Your task to perform on an android device: What's the price of the Hisense TV? Image 0: 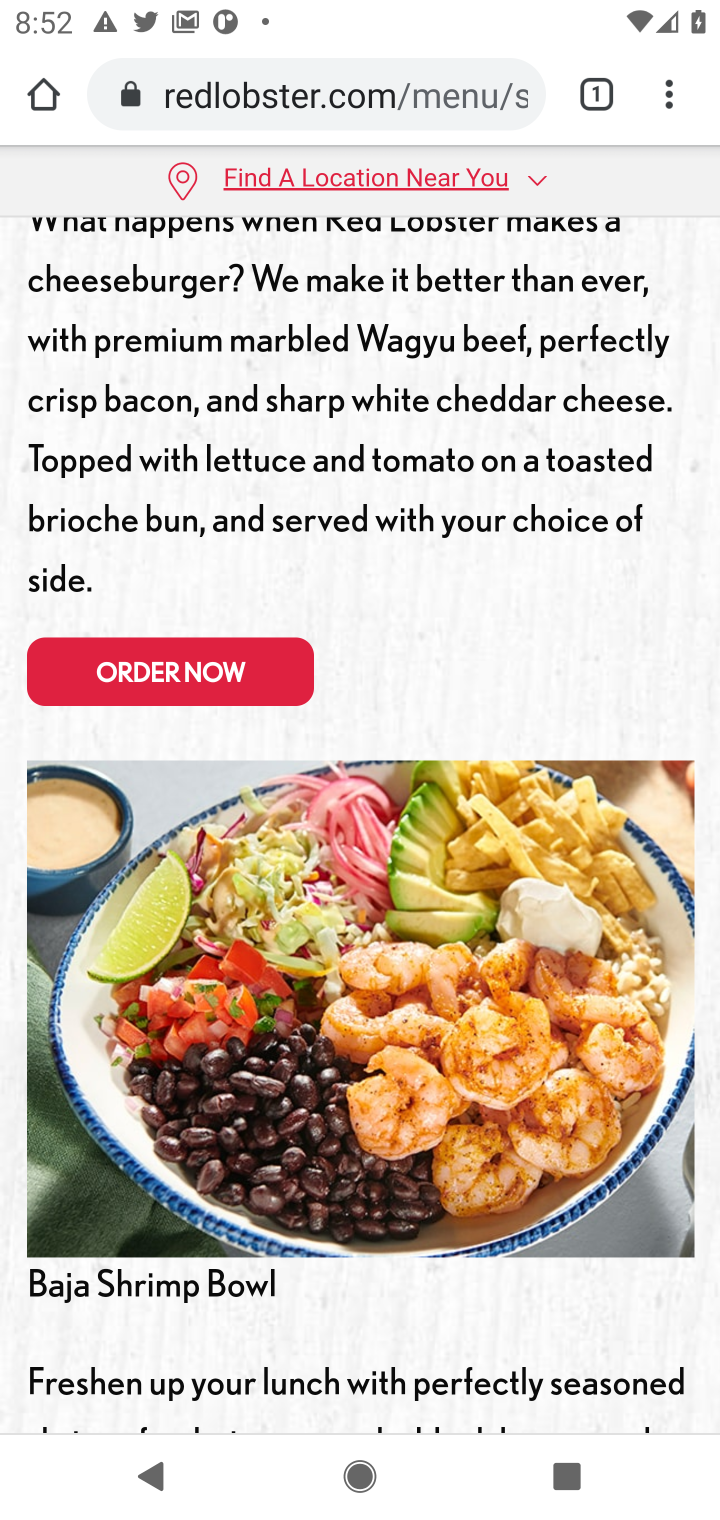
Step 0: press home button
Your task to perform on an android device: What's the price of the Hisense TV? Image 1: 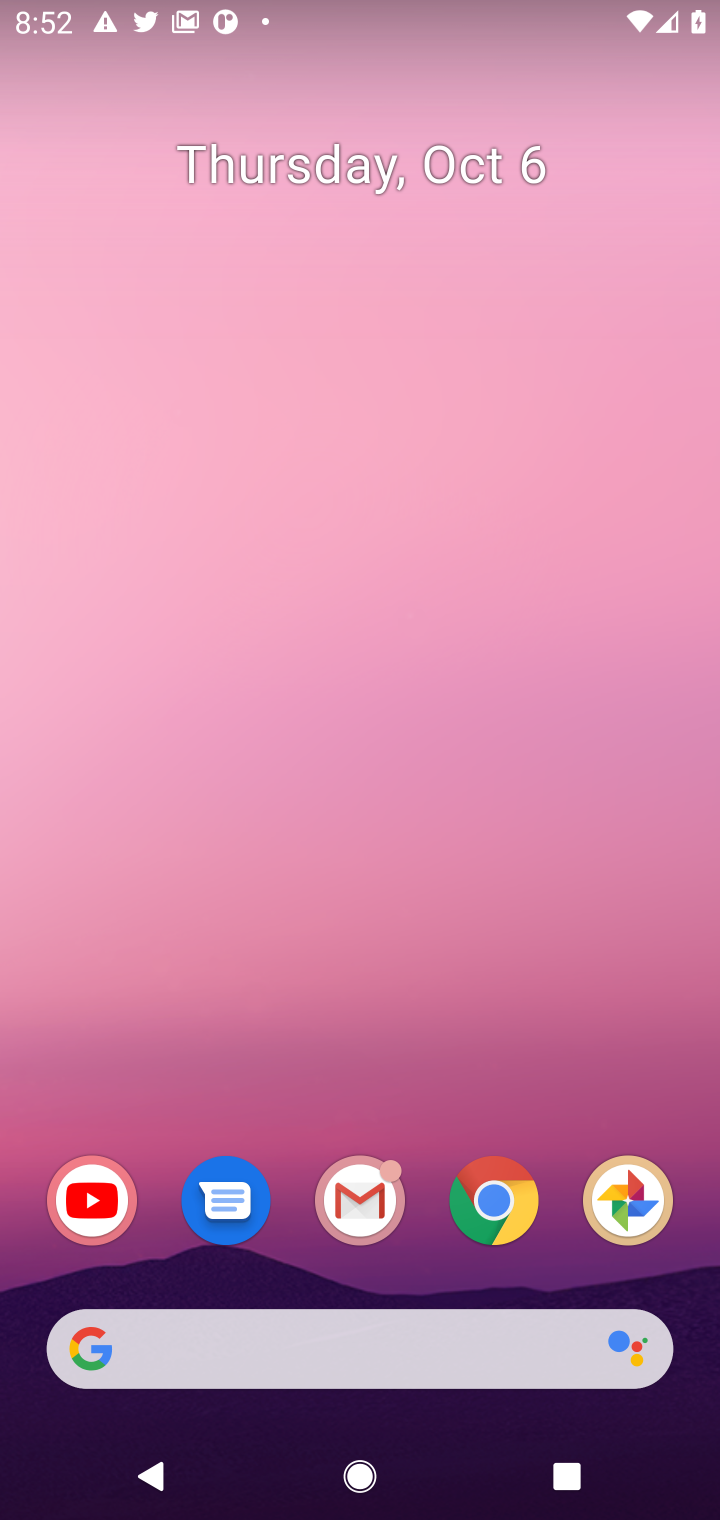
Step 1: click (498, 1185)
Your task to perform on an android device: What's the price of the Hisense TV? Image 2: 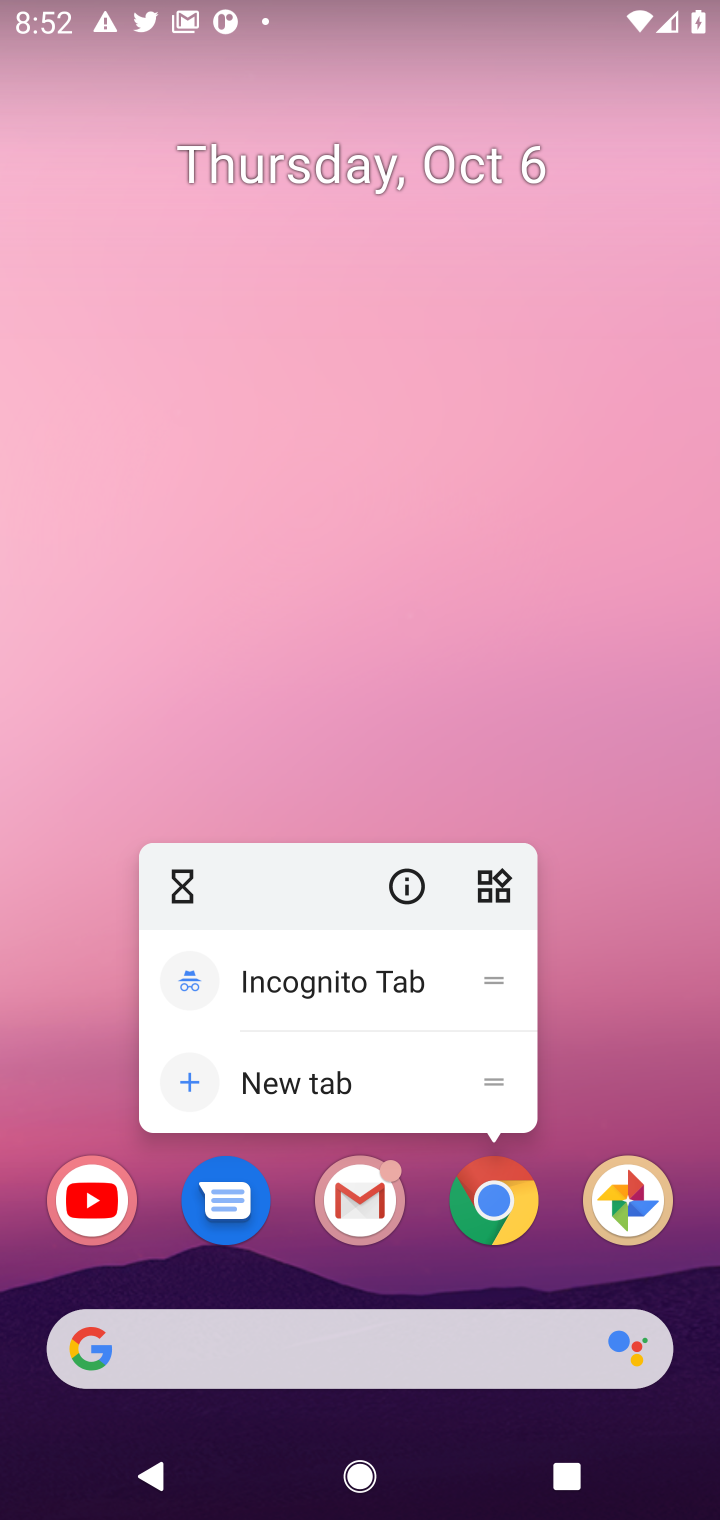
Step 2: click (499, 1183)
Your task to perform on an android device: What's the price of the Hisense TV? Image 3: 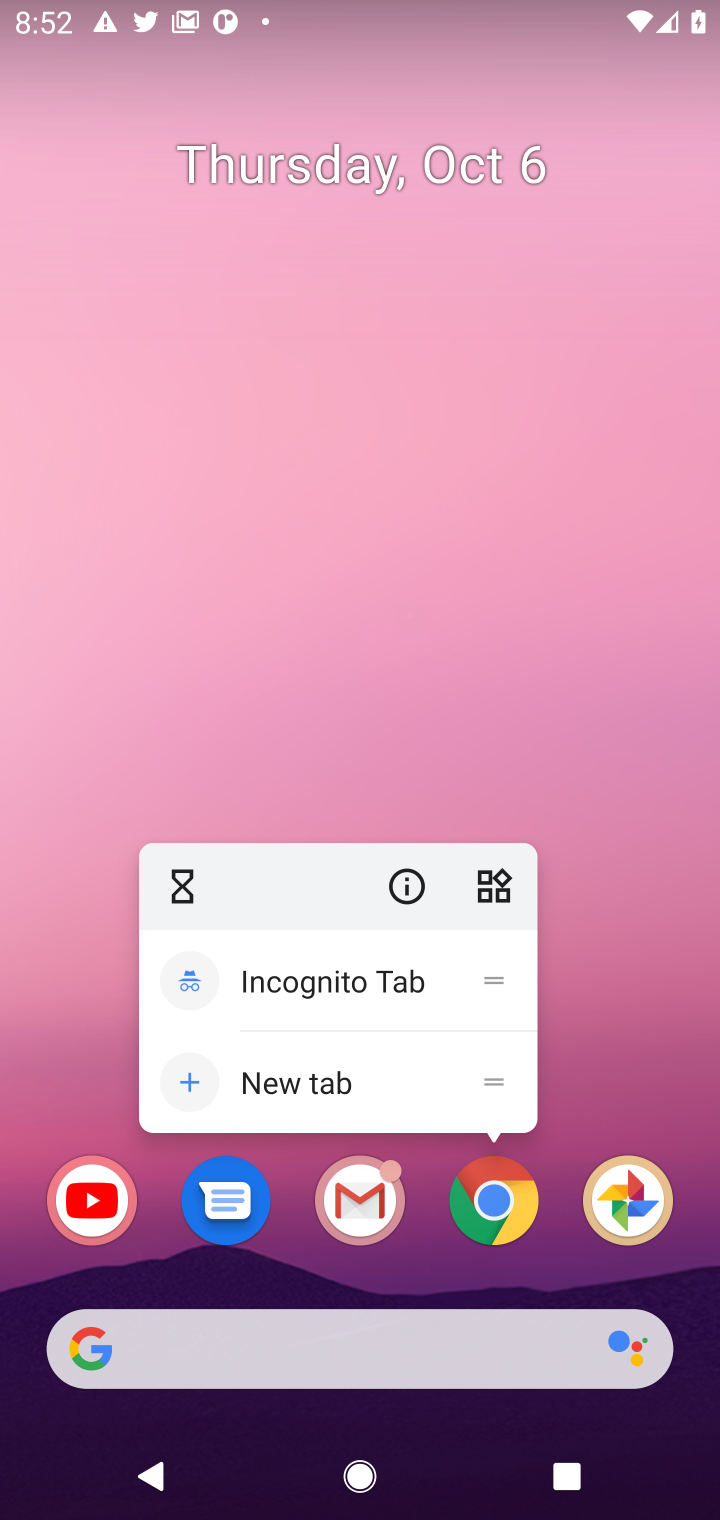
Step 3: click (472, 1227)
Your task to perform on an android device: What's the price of the Hisense TV? Image 4: 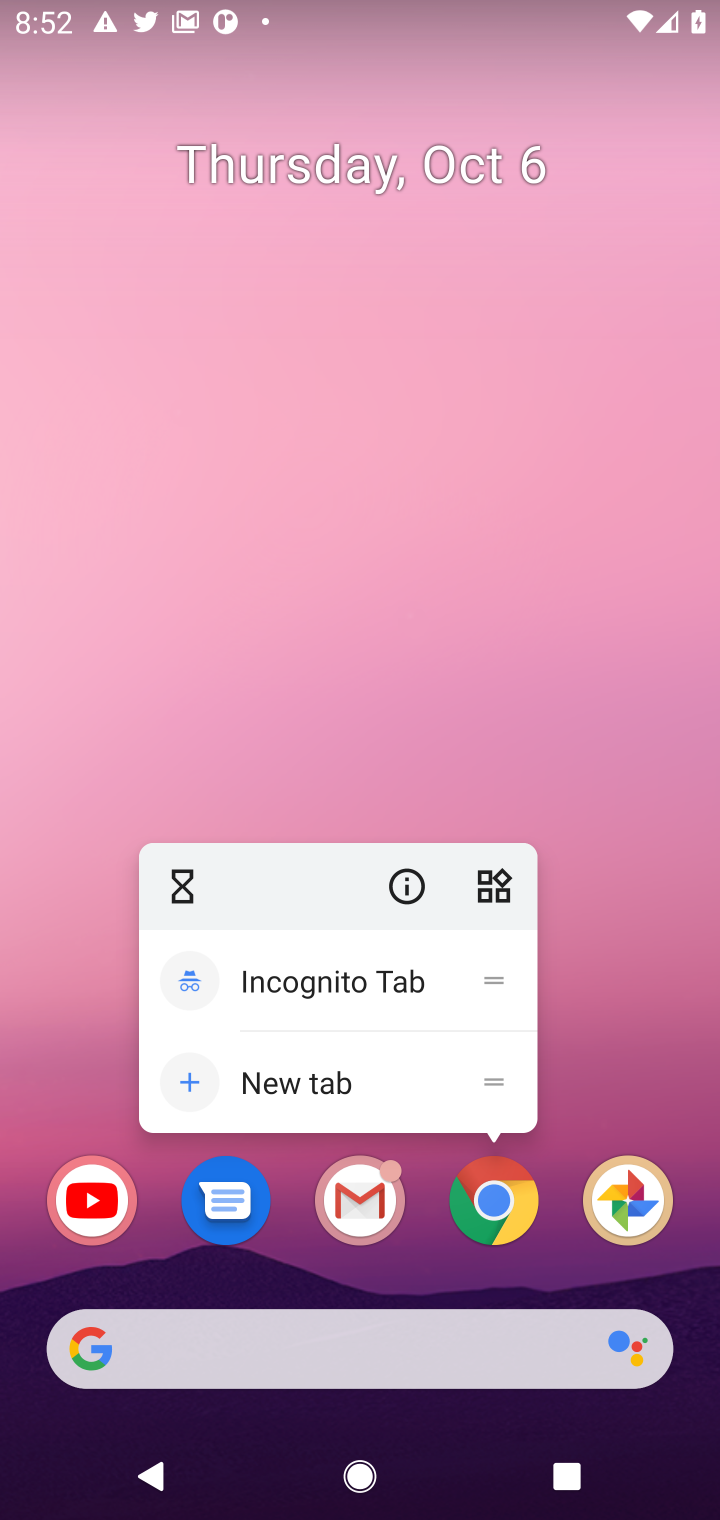
Step 4: click (476, 1215)
Your task to perform on an android device: What's the price of the Hisense TV? Image 5: 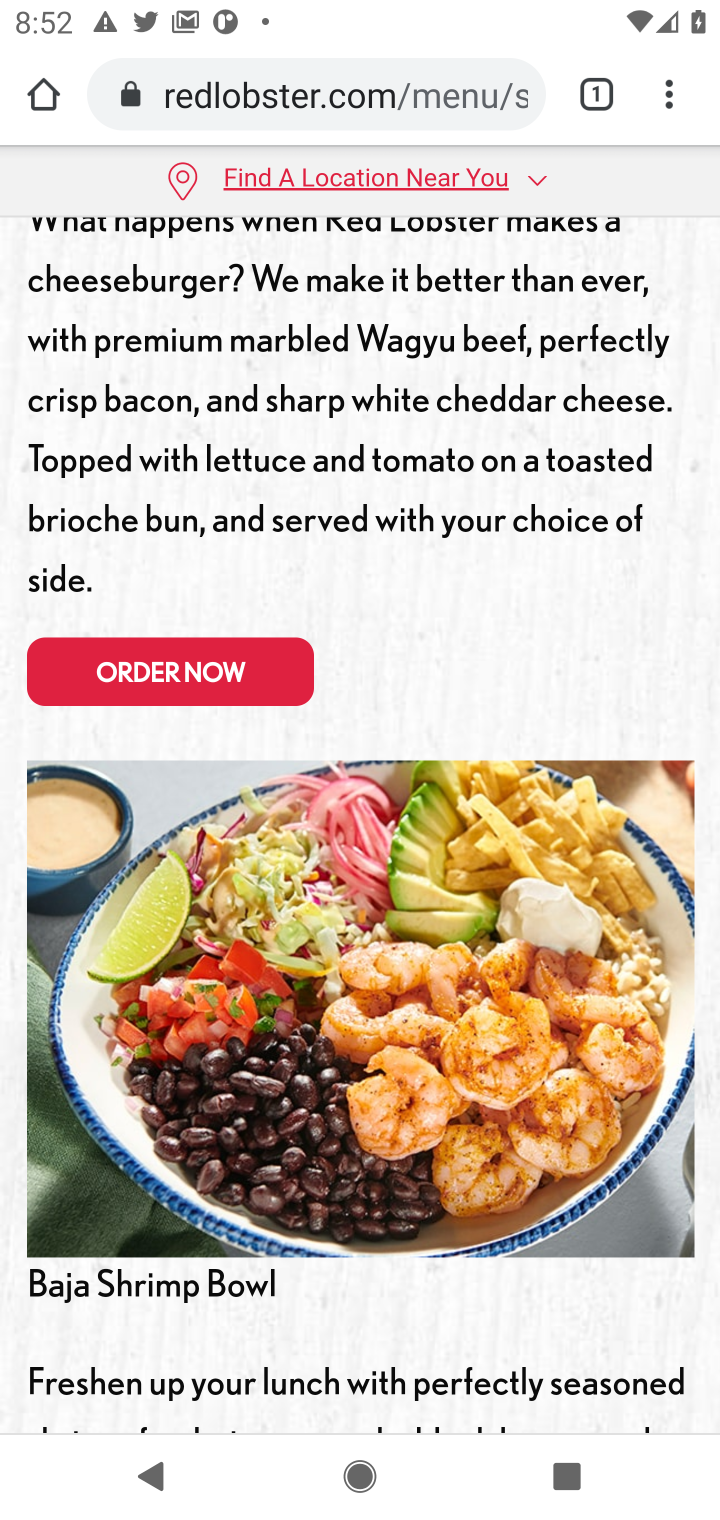
Step 5: click (438, 98)
Your task to perform on an android device: What's the price of the Hisense TV? Image 6: 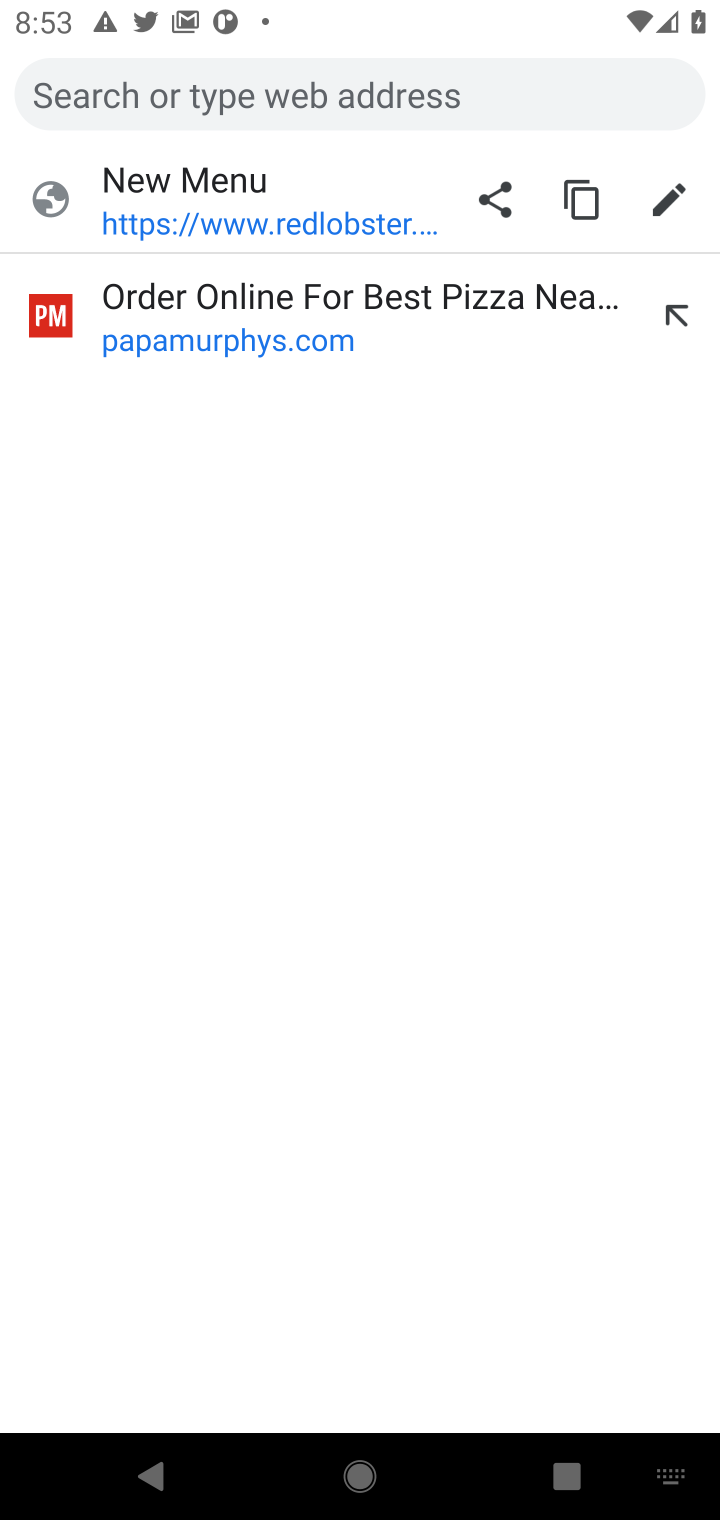
Step 6: type "price of the hisense tv "
Your task to perform on an android device: What's the price of the Hisense TV? Image 7: 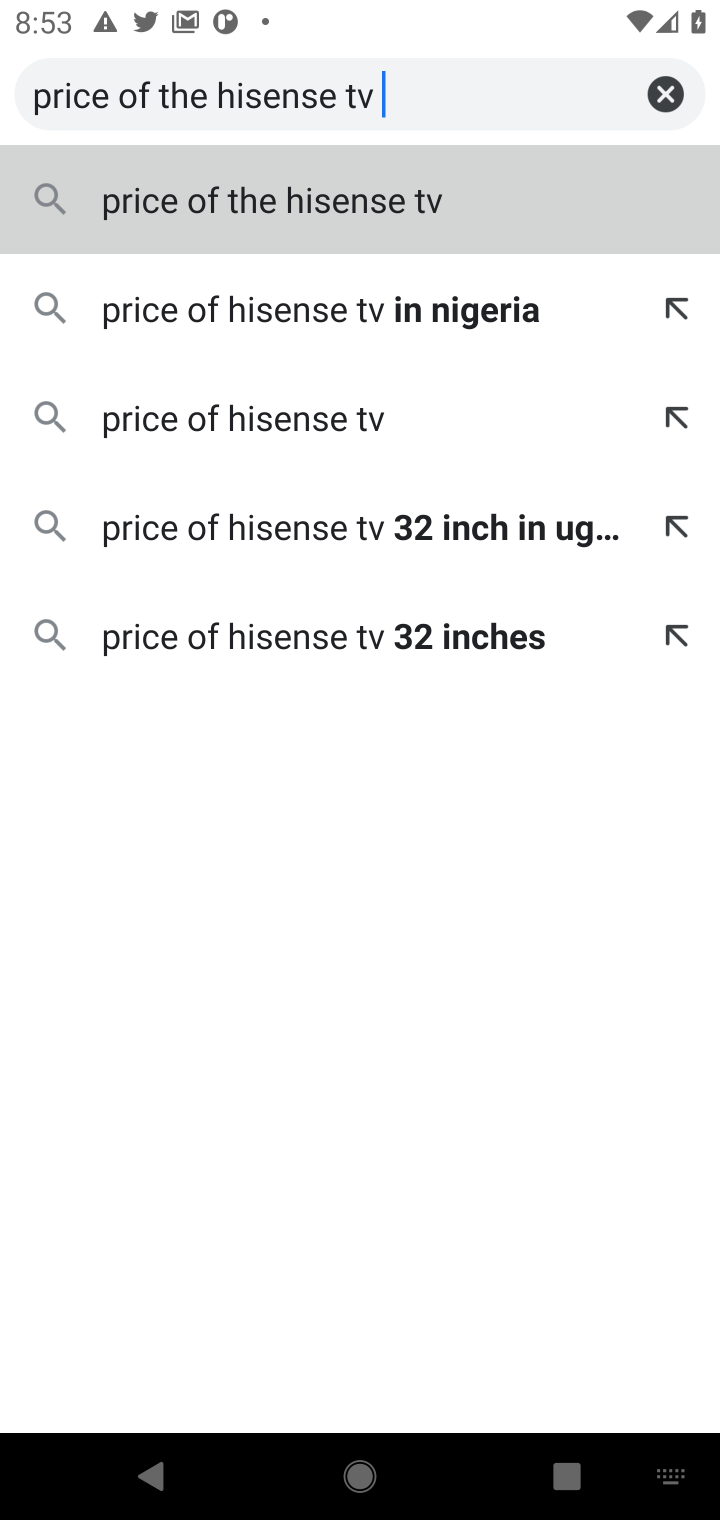
Step 7: click (320, 312)
Your task to perform on an android device: What's the price of the Hisense TV? Image 8: 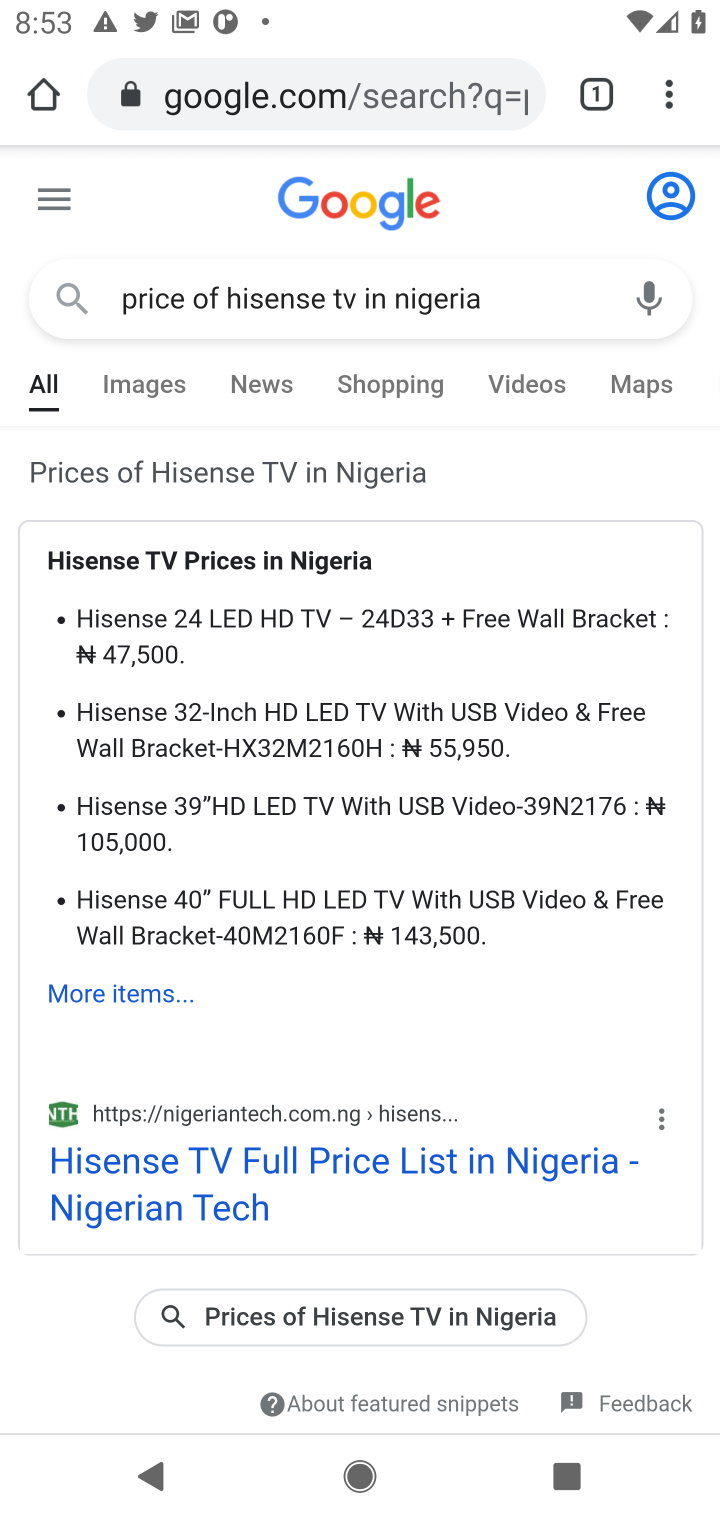
Step 8: click (277, 1161)
Your task to perform on an android device: What's the price of the Hisense TV? Image 9: 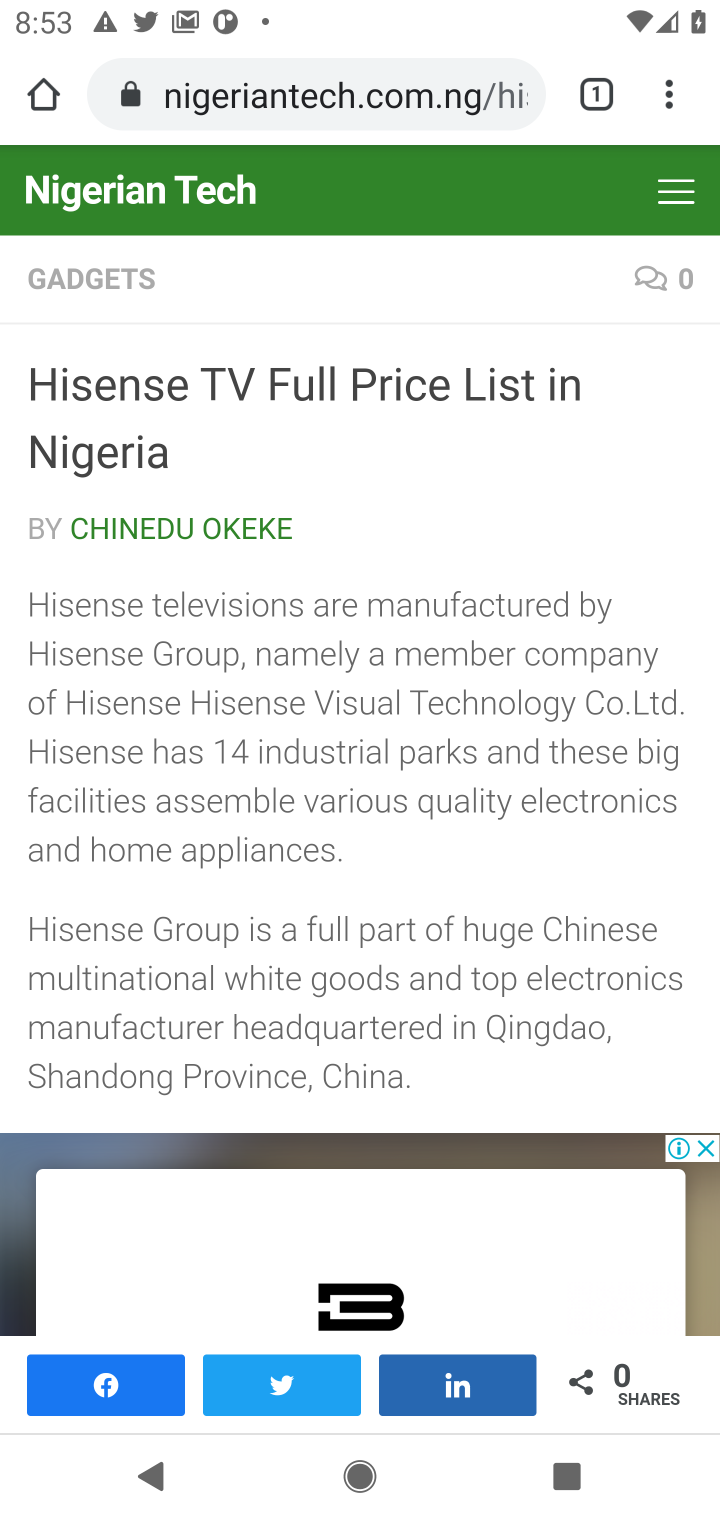
Step 9: task complete